Your task to perform on an android device: Open Yahoo.com Image 0: 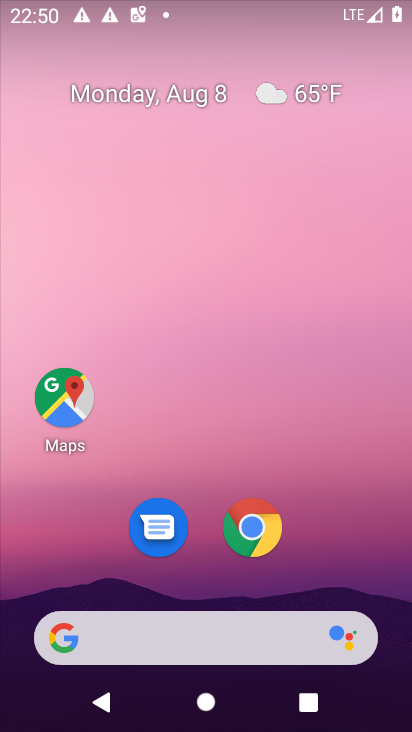
Step 0: click (242, 530)
Your task to perform on an android device: Open Yahoo.com Image 1: 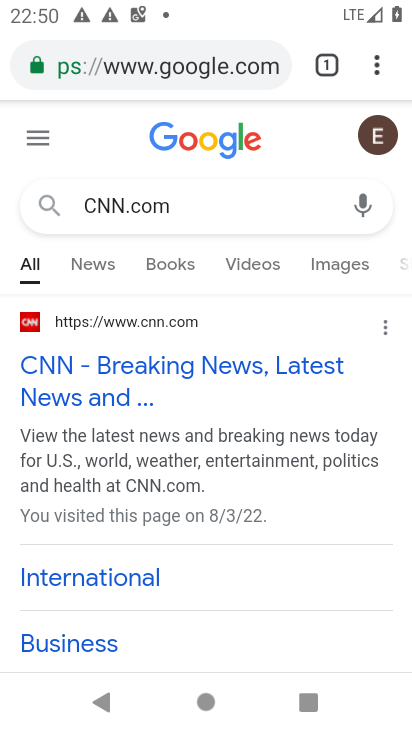
Step 1: click (233, 63)
Your task to perform on an android device: Open Yahoo.com Image 2: 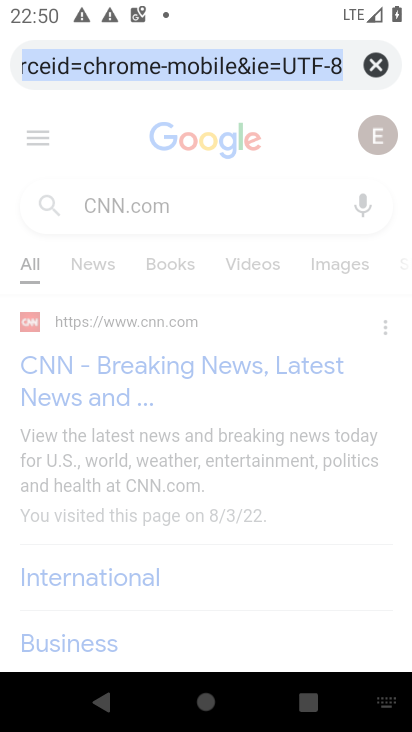
Step 2: click (378, 62)
Your task to perform on an android device: Open Yahoo.com Image 3: 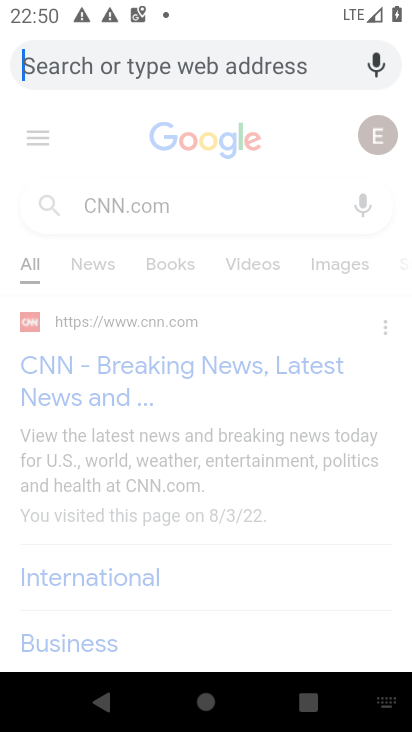
Step 3: type "Yahoo.com"
Your task to perform on an android device: Open Yahoo.com Image 4: 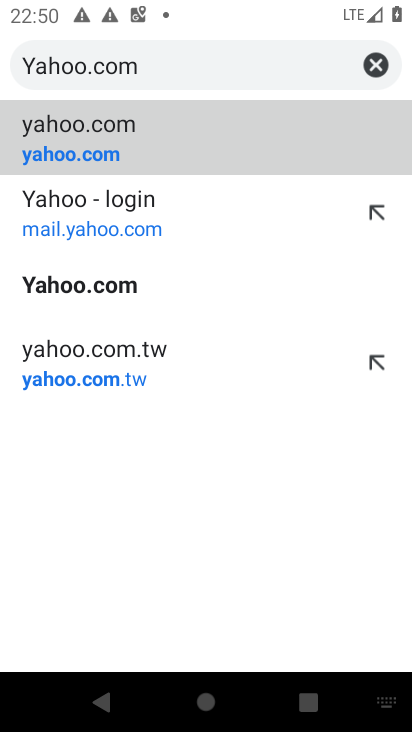
Step 4: click (97, 275)
Your task to perform on an android device: Open Yahoo.com Image 5: 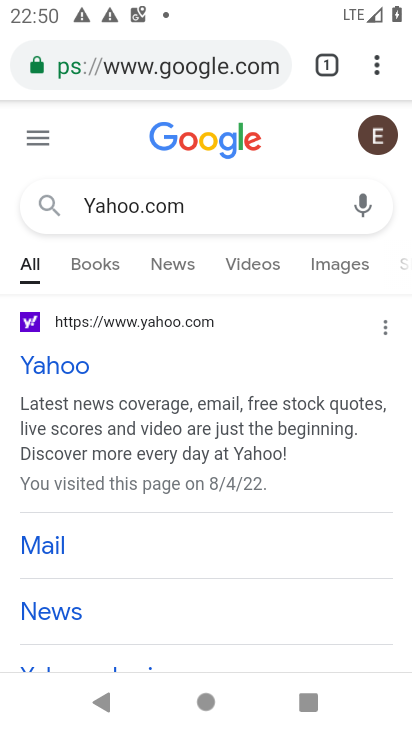
Step 5: task complete